Your task to perform on an android device: Find coffee shops on Maps Image 0: 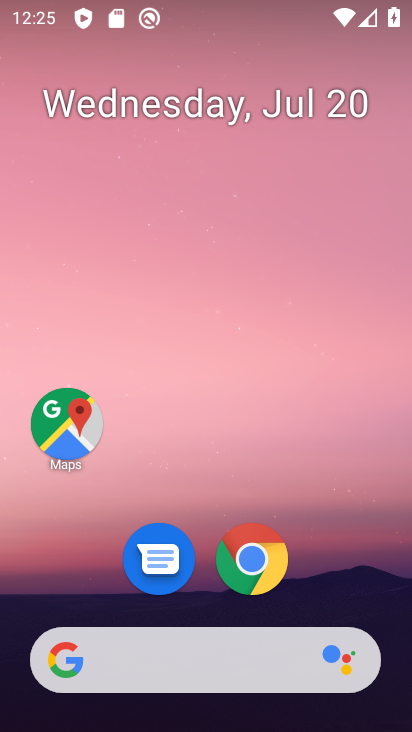
Step 0: drag from (356, 579) to (352, 100)
Your task to perform on an android device: Find coffee shops on Maps Image 1: 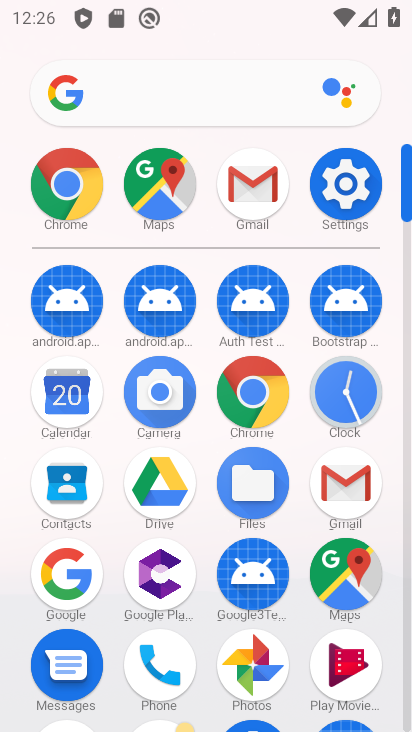
Step 1: click (356, 575)
Your task to perform on an android device: Find coffee shops on Maps Image 2: 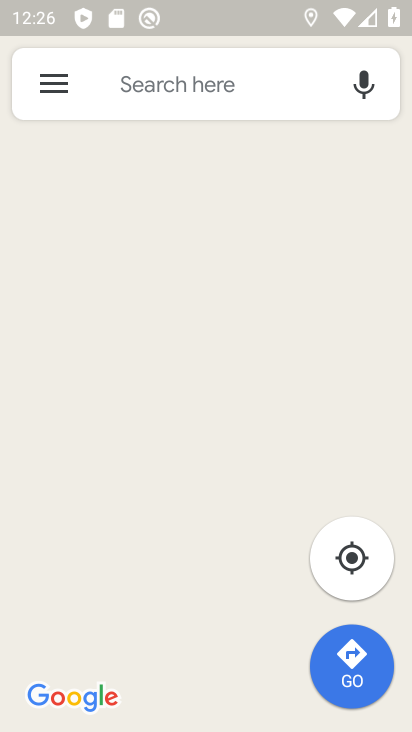
Step 2: click (233, 103)
Your task to perform on an android device: Find coffee shops on Maps Image 3: 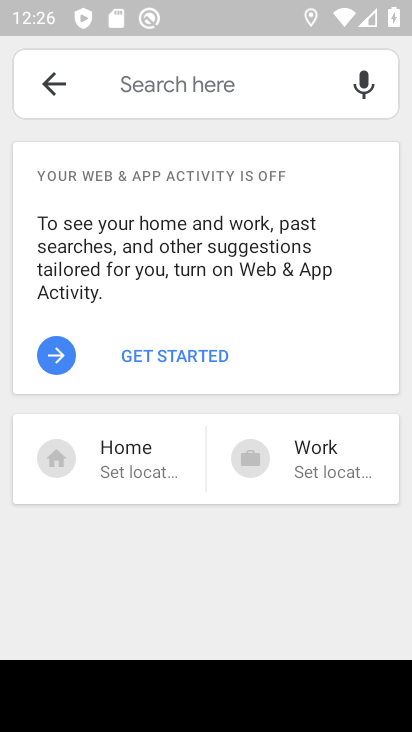
Step 3: type "coffee"
Your task to perform on an android device: Find coffee shops on Maps Image 4: 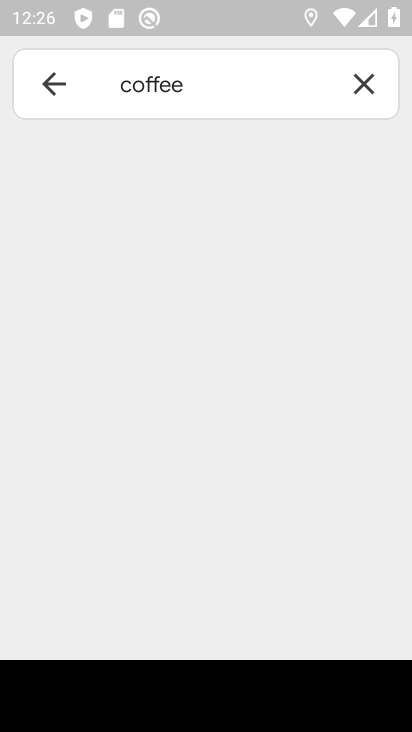
Step 4: task complete